Your task to perform on an android device: turn on wifi Image 0: 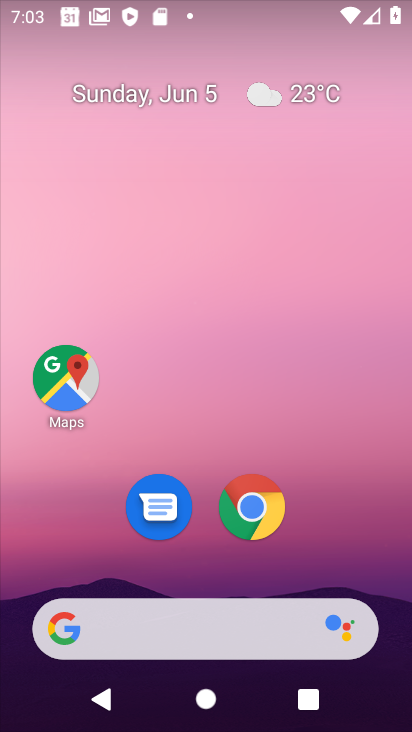
Step 0: drag from (272, 654) to (272, 91)
Your task to perform on an android device: turn on wifi Image 1: 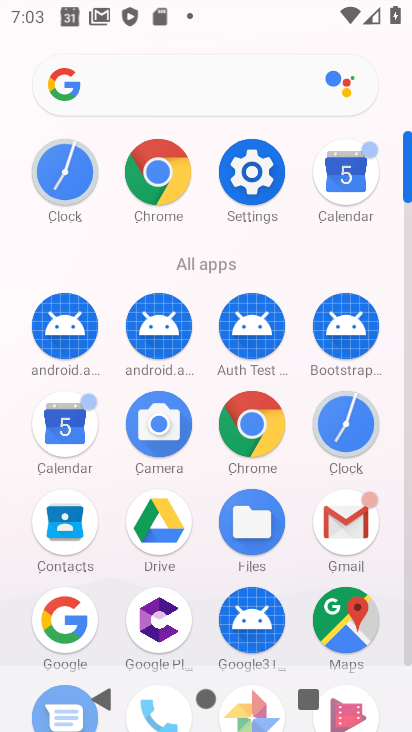
Step 1: click (243, 172)
Your task to perform on an android device: turn on wifi Image 2: 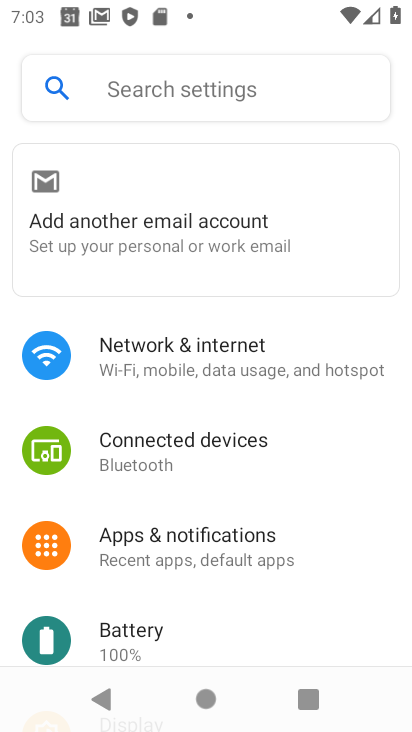
Step 2: click (198, 217)
Your task to perform on an android device: turn on wifi Image 3: 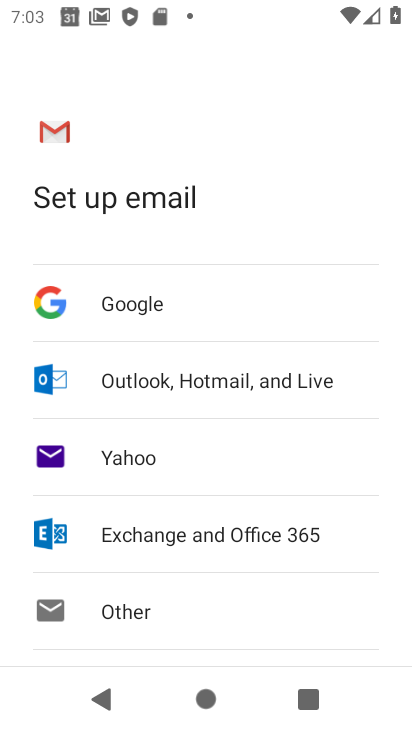
Step 3: press home button
Your task to perform on an android device: turn on wifi Image 4: 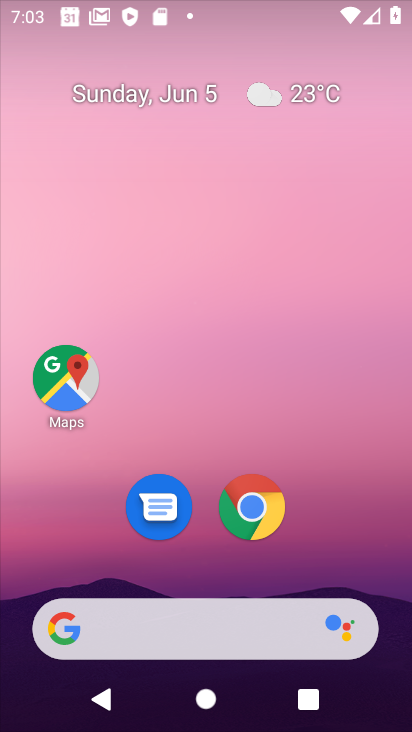
Step 4: drag from (230, 666) to (231, 77)
Your task to perform on an android device: turn on wifi Image 5: 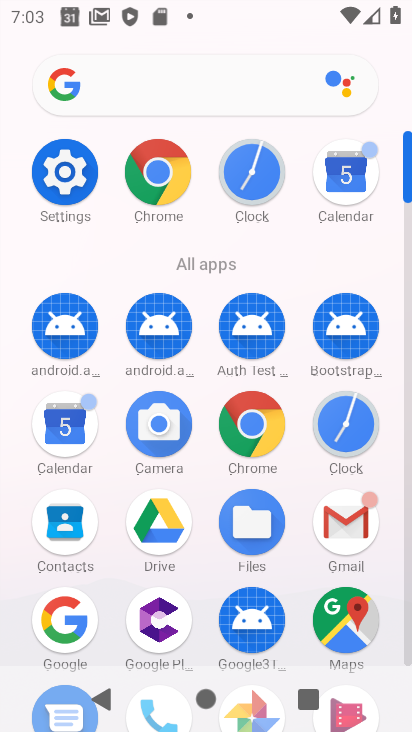
Step 5: click (73, 181)
Your task to perform on an android device: turn on wifi Image 6: 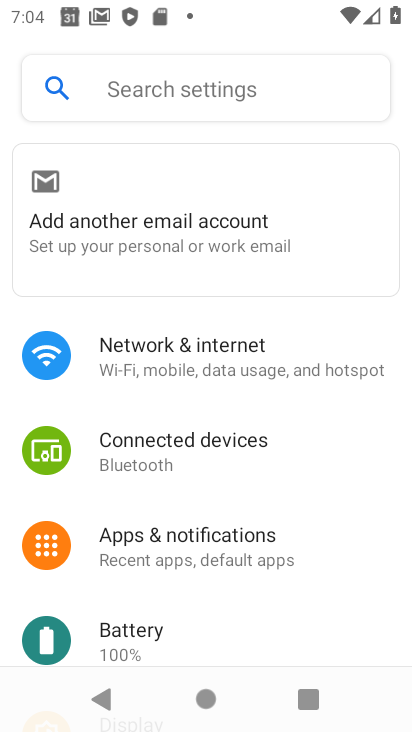
Step 6: click (111, 353)
Your task to perform on an android device: turn on wifi Image 7: 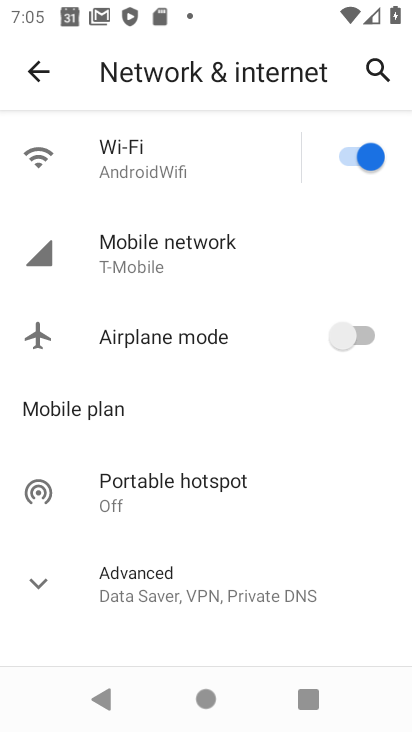
Step 7: click (223, 161)
Your task to perform on an android device: turn on wifi Image 8: 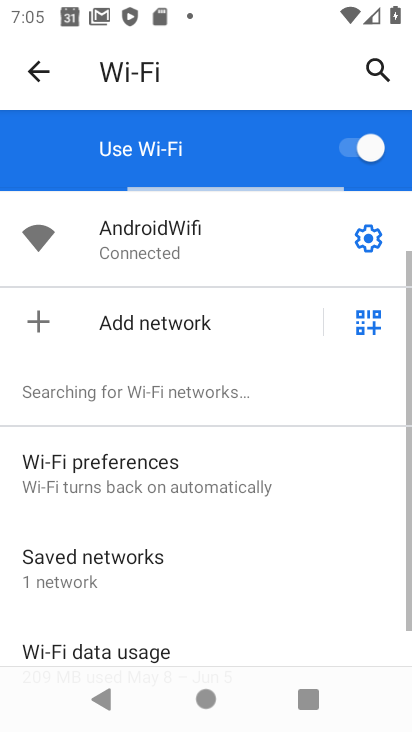
Step 8: click (347, 140)
Your task to perform on an android device: turn on wifi Image 9: 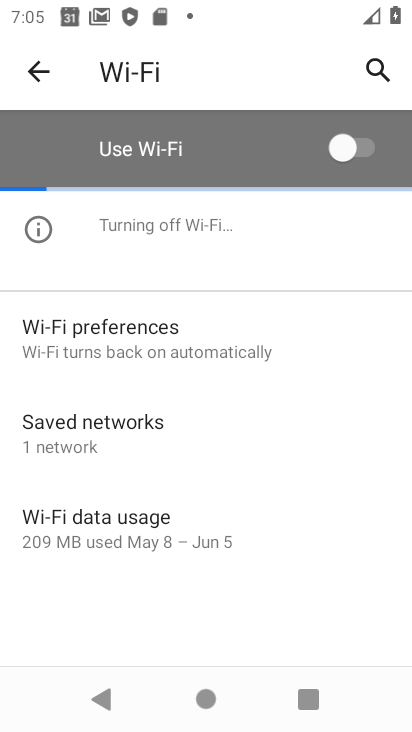
Step 9: click (335, 153)
Your task to perform on an android device: turn on wifi Image 10: 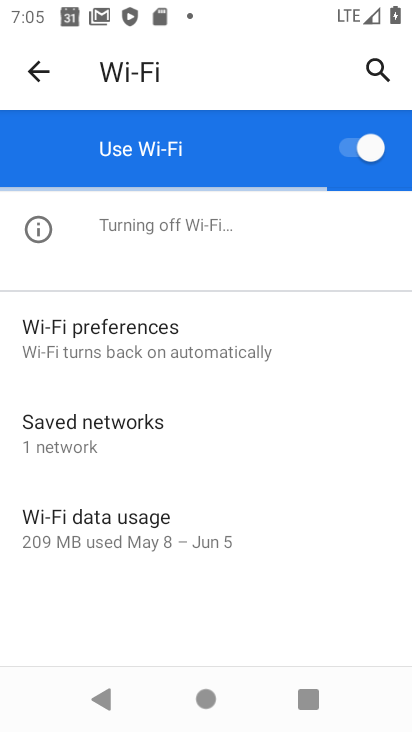
Step 10: task complete